Your task to perform on an android device: set an alarm Image 0: 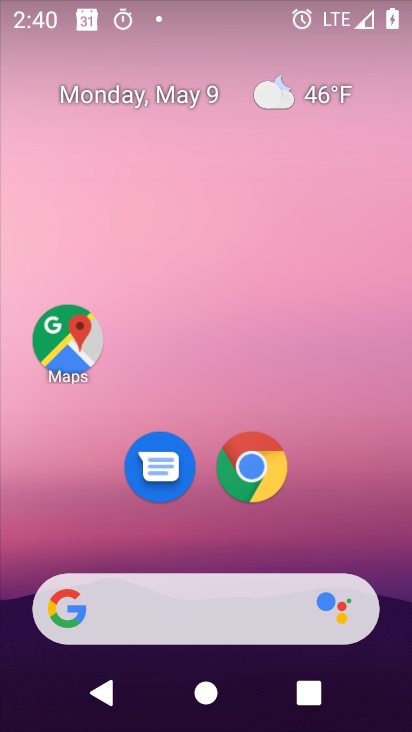
Step 0: drag from (365, 513) to (297, 154)
Your task to perform on an android device: set an alarm Image 1: 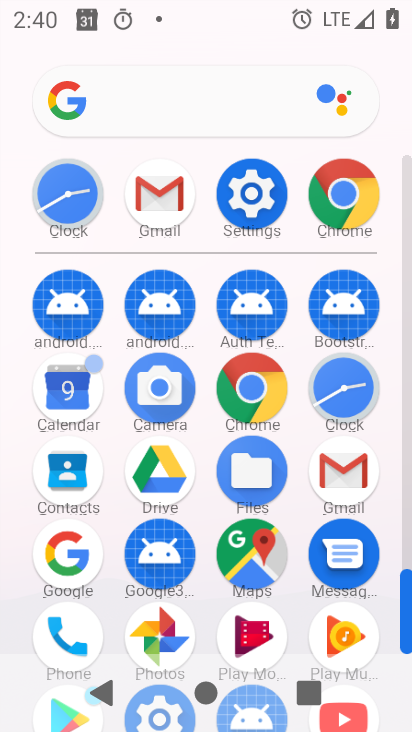
Step 1: click (361, 386)
Your task to perform on an android device: set an alarm Image 2: 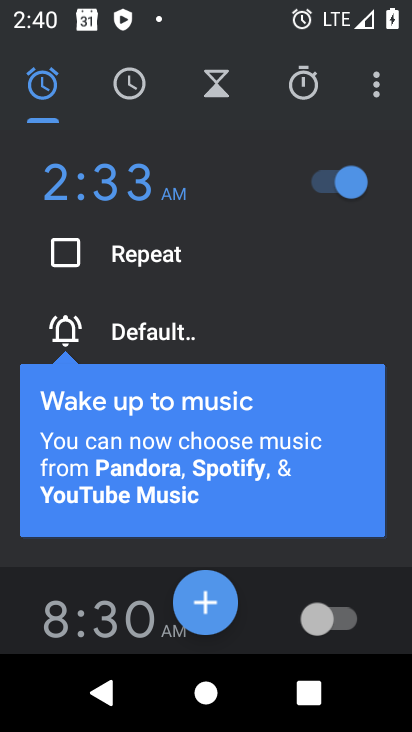
Step 2: click (188, 599)
Your task to perform on an android device: set an alarm Image 3: 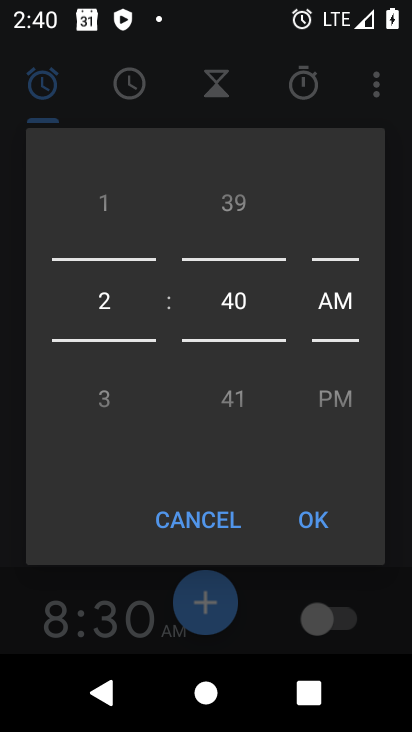
Step 3: click (305, 519)
Your task to perform on an android device: set an alarm Image 4: 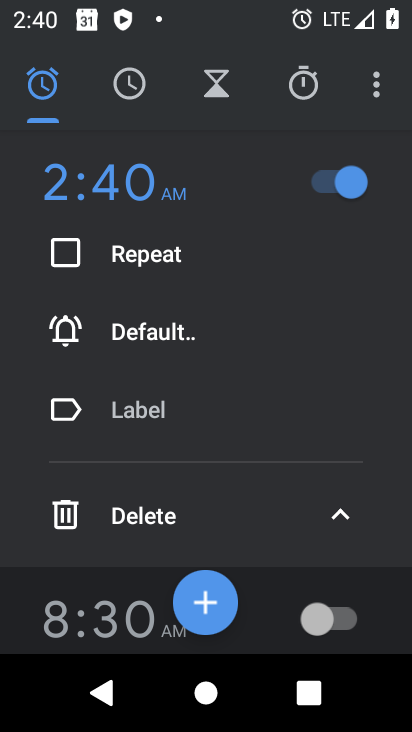
Step 4: task complete